Your task to perform on an android device: toggle pop-ups in chrome Image 0: 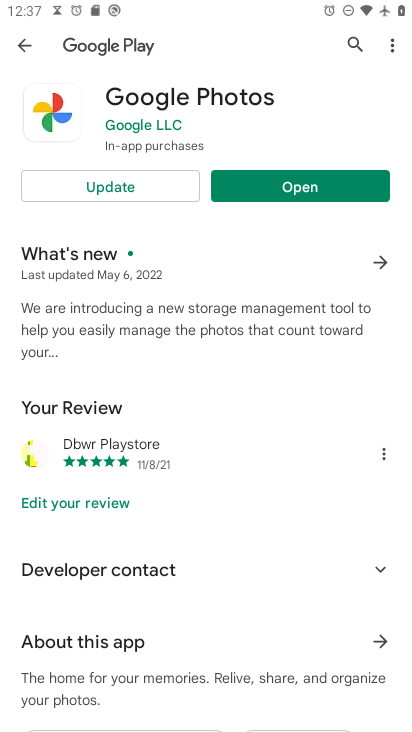
Step 0: press home button
Your task to perform on an android device: toggle pop-ups in chrome Image 1: 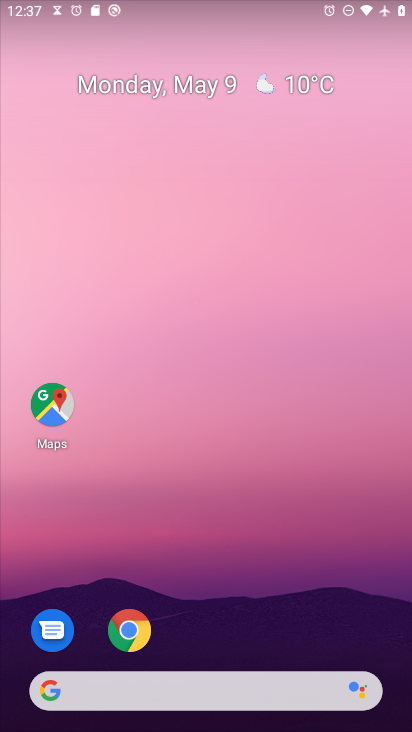
Step 1: click (128, 635)
Your task to perform on an android device: toggle pop-ups in chrome Image 2: 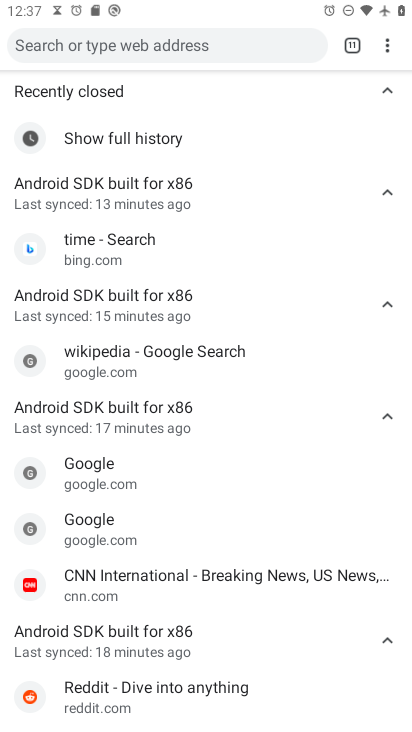
Step 2: drag from (386, 47) to (242, 383)
Your task to perform on an android device: toggle pop-ups in chrome Image 3: 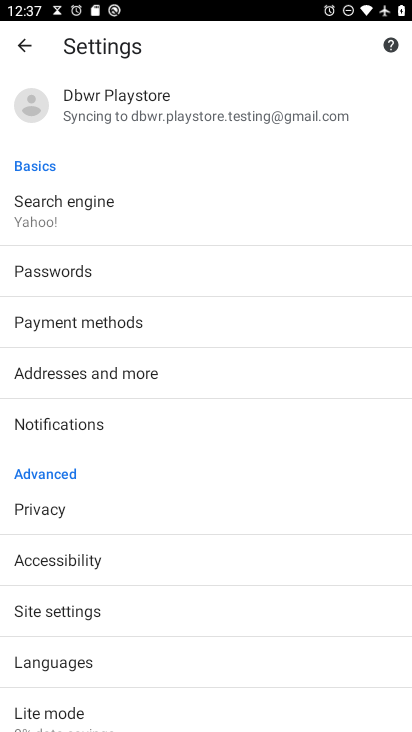
Step 3: drag from (113, 668) to (271, 266)
Your task to perform on an android device: toggle pop-ups in chrome Image 4: 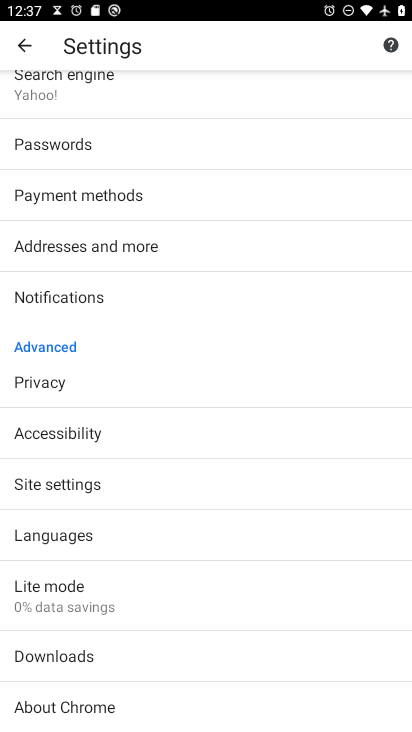
Step 4: click (87, 484)
Your task to perform on an android device: toggle pop-ups in chrome Image 5: 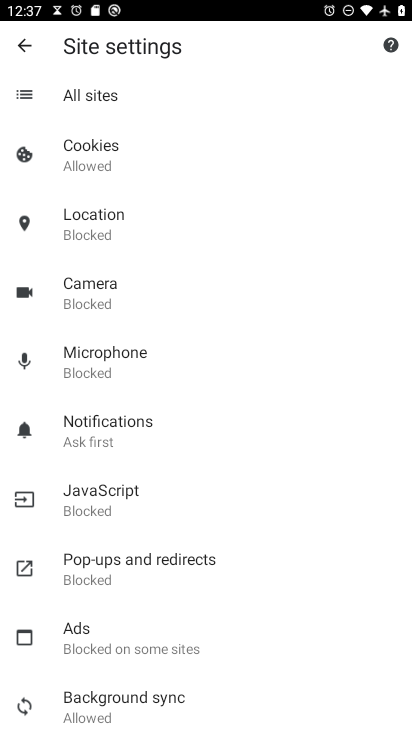
Step 5: click (117, 564)
Your task to perform on an android device: toggle pop-ups in chrome Image 6: 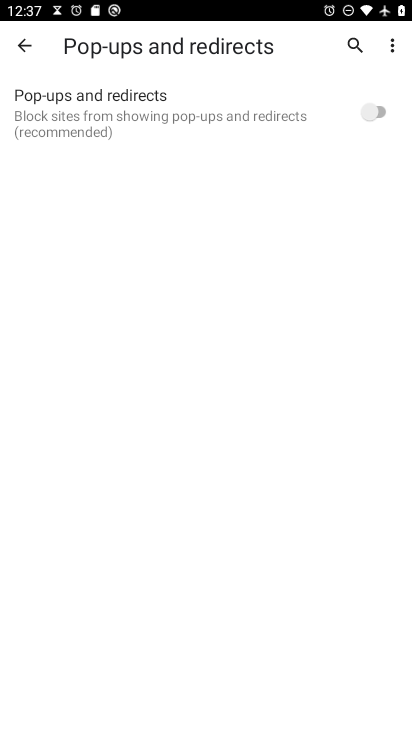
Step 6: click (378, 111)
Your task to perform on an android device: toggle pop-ups in chrome Image 7: 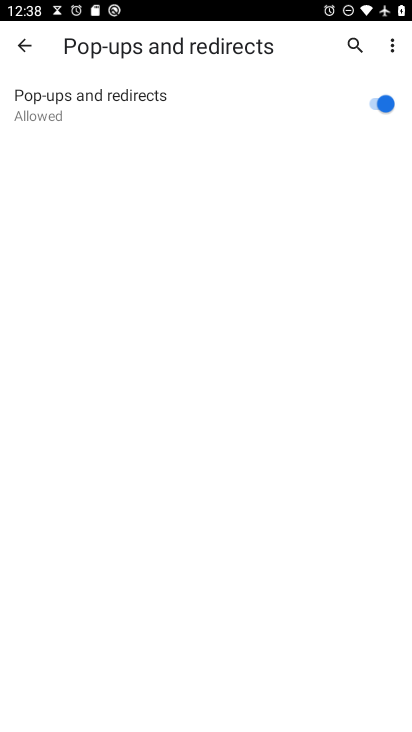
Step 7: task complete